Your task to perform on an android device: Show me recent news Image 0: 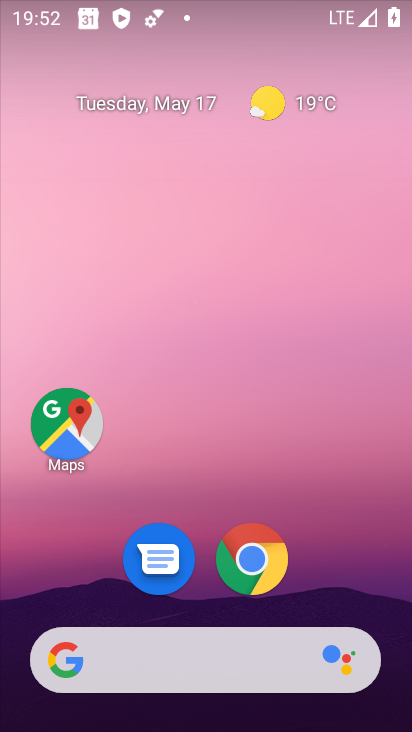
Step 0: click (216, 650)
Your task to perform on an android device: Show me recent news Image 1: 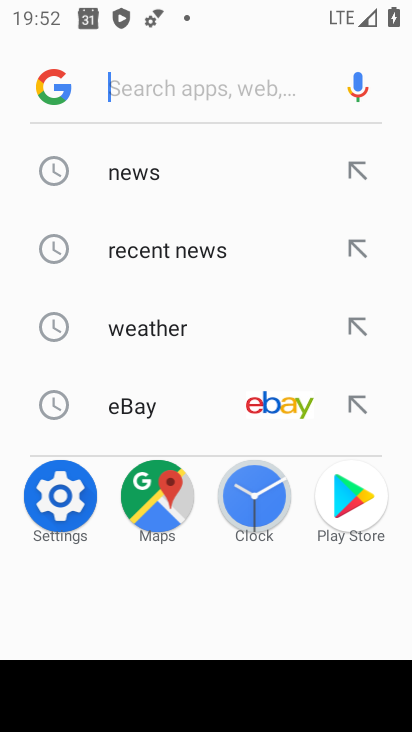
Step 1: click (179, 247)
Your task to perform on an android device: Show me recent news Image 2: 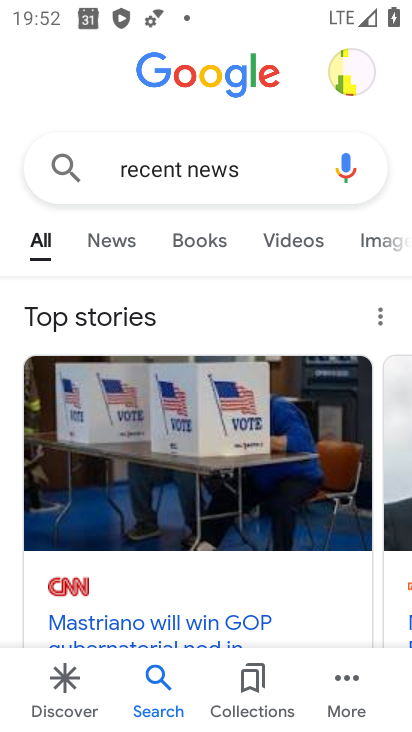
Step 2: task complete